Your task to perform on an android device: toggle priority inbox in the gmail app Image 0: 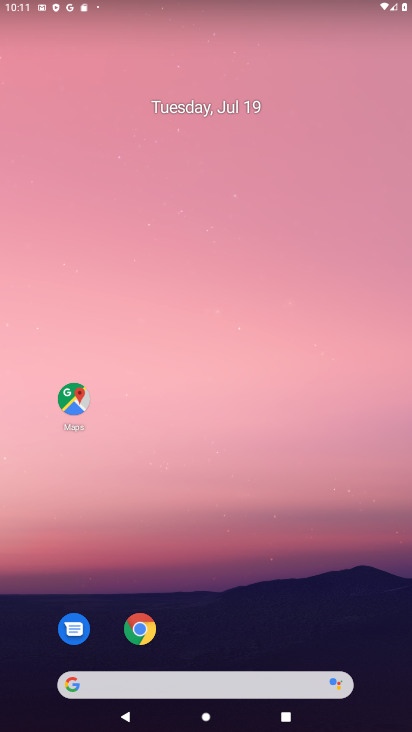
Step 0: drag from (181, 535) to (243, 85)
Your task to perform on an android device: toggle priority inbox in the gmail app Image 1: 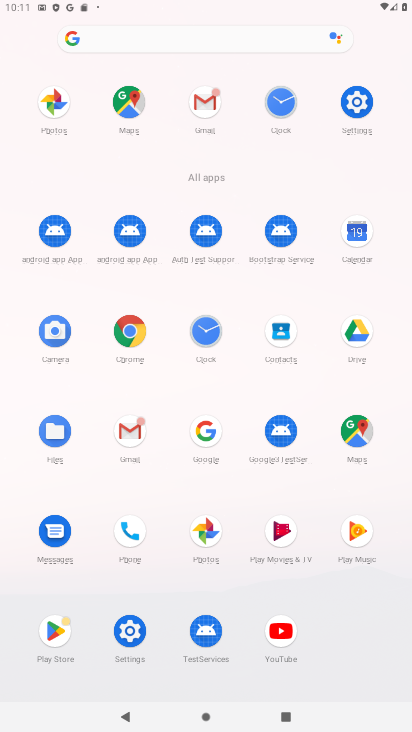
Step 1: click (134, 423)
Your task to perform on an android device: toggle priority inbox in the gmail app Image 2: 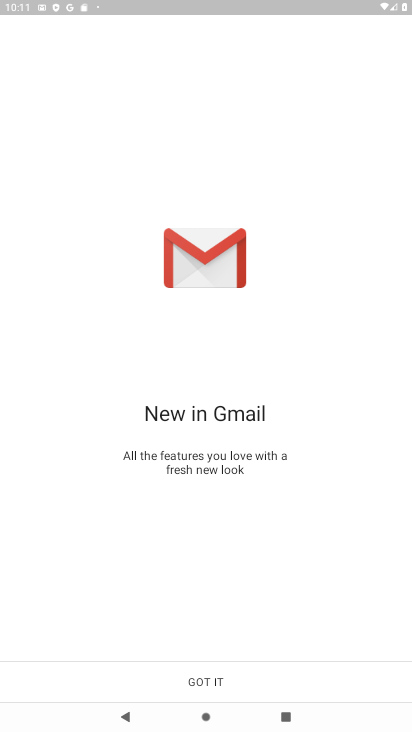
Step 2: click (189, 669)
Your task to perform on an android device: toggle priority inbox in the gmail app Image 3: 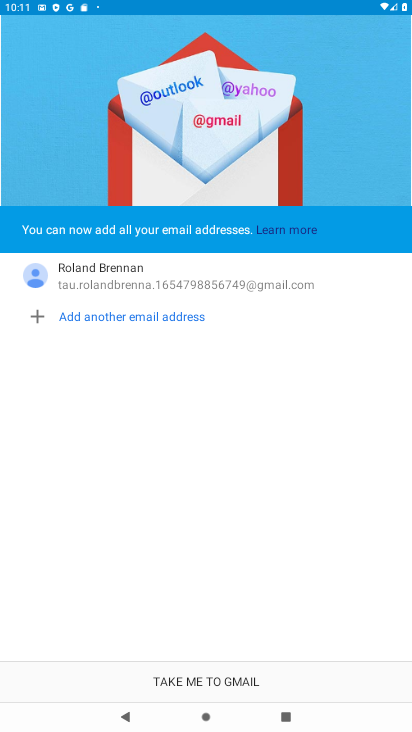
Step 3: click (208, 675)
Your task to perform on an android device: toggle priority inbox in the gmail app Image 4: 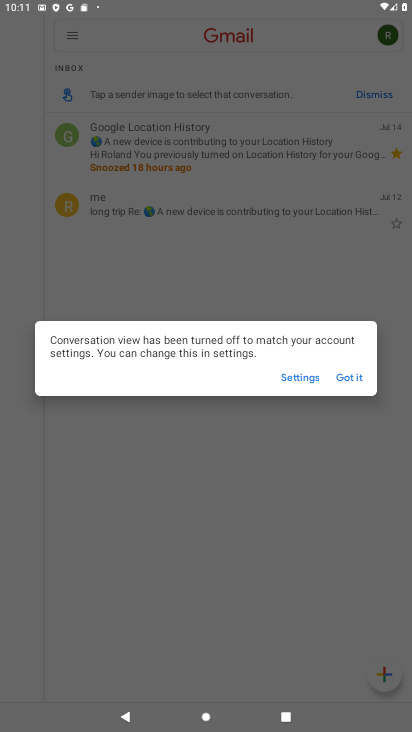
Step 4: click (353, 377)
Your task to perform on an android device: toggle priority inbox in the gmail app Image 5: 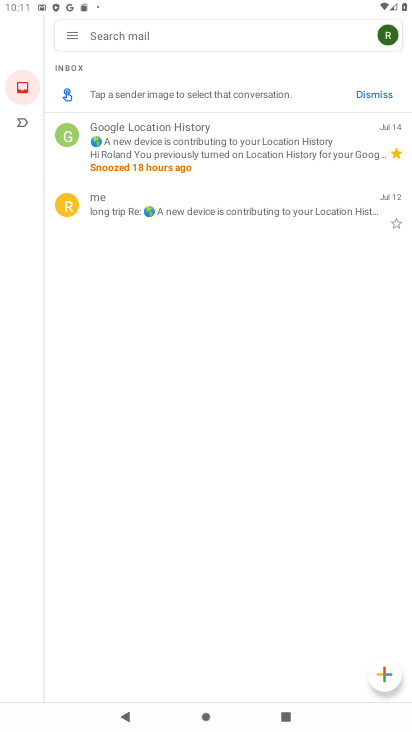
Step 5: click (71, 37)
Your task to perform on an android device: toggle priority inbox in the gmail app Image 6: 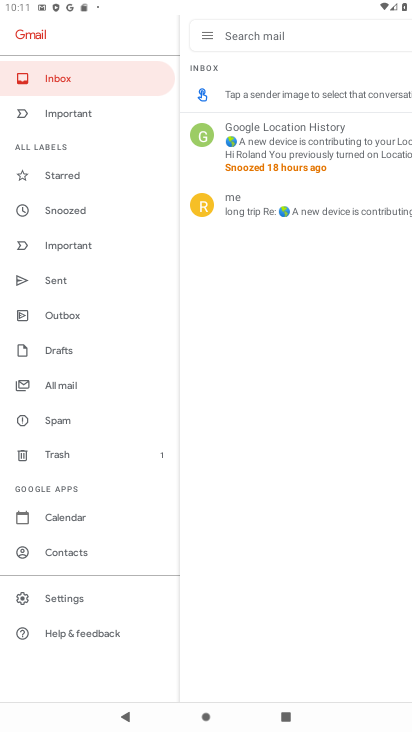
Step 6: click (103, 590)
Your task to perform on an android device: toggle priority inbox in the gmail app Image 7: 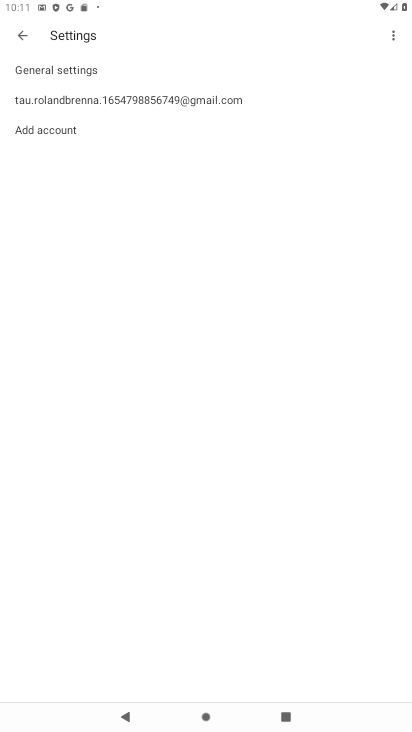
Step 7: click (274, 98)
Your task to perform on an android device: toggle priority inbox in the gmail app Image 8: 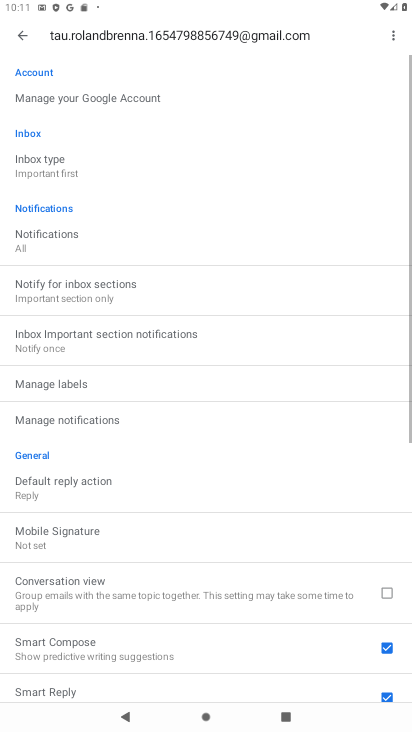
Step 8: click (185, 176)
Your task to perform on an android device: toggle priority inbox in the gmail app Image 9: 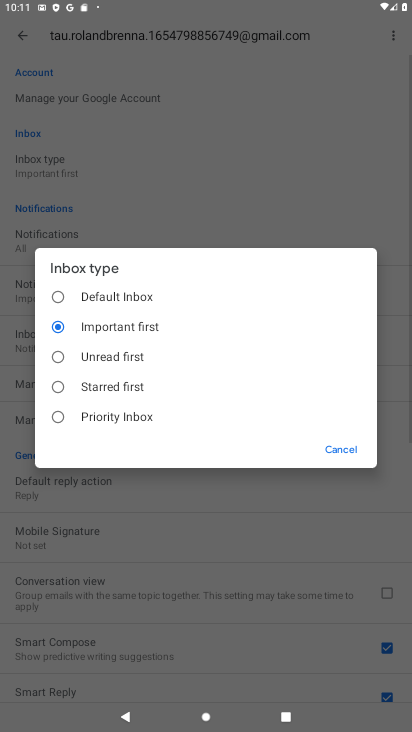
Step 9: click (125, 420)
Your task to perform on an android device: toggle priority inbox in the gmail app Image 10: 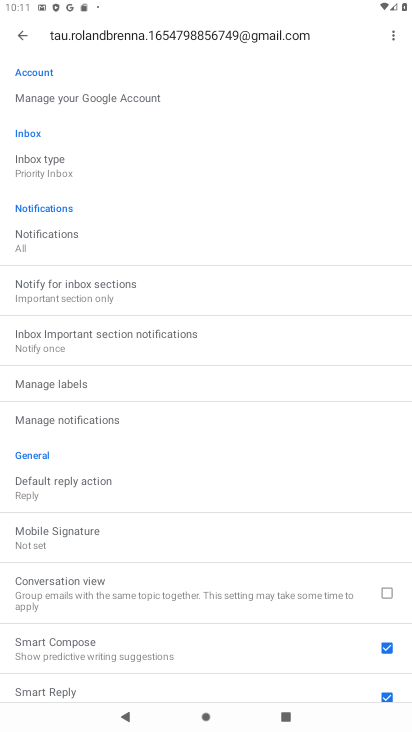
Step 10: task complete